Your task to perform on an android device: toggle priority inbox in the gmail app Image 0: 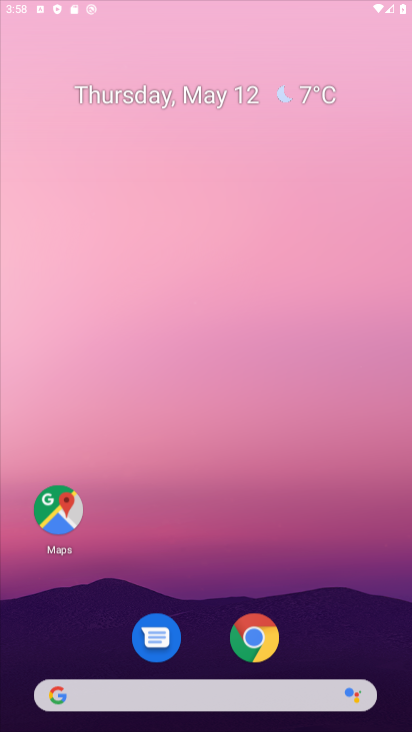
Step 0: click (266, 129)
Your task to perform on an android device: toggle priority inbox in the gmail app Image 1: 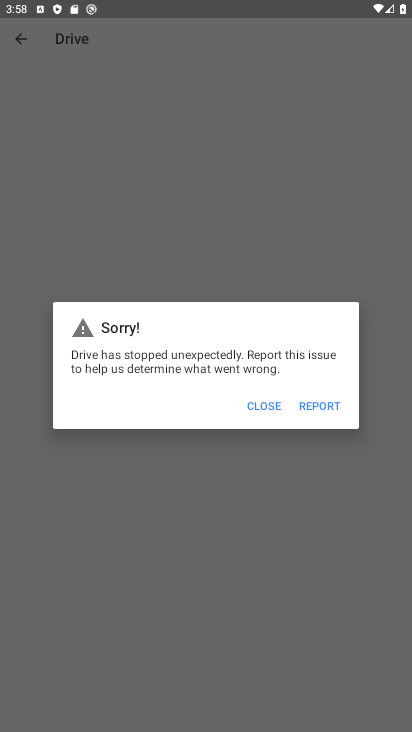
Step 1: press home button
Your task to perform on an android device: toggle priority inbox in the gmail app Image 2: 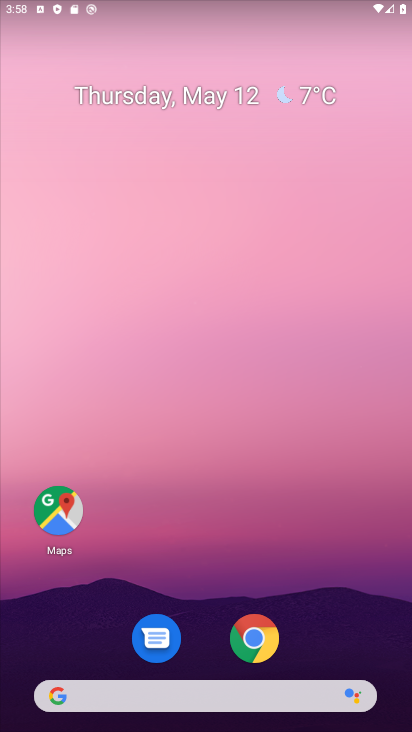
Step 2: drag from (313, 588) to (301, 170)
Your task to perform on an android device: toggle priority inbox in the gmail app Image 3: 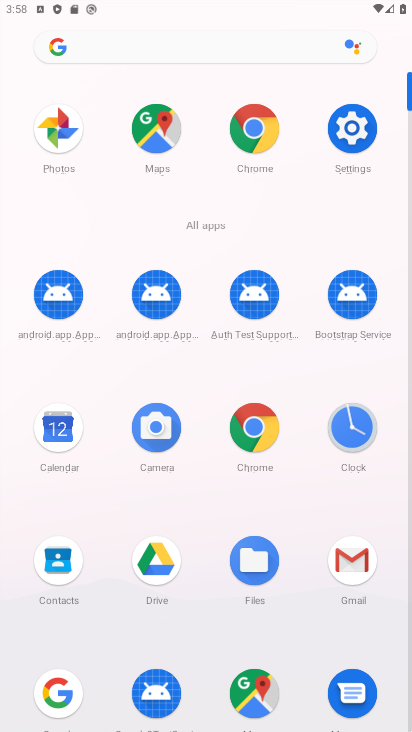
Step 3: click (354, 563)
Your task to perform on an android device: toggle priority inbox in the gmail app Image 4: 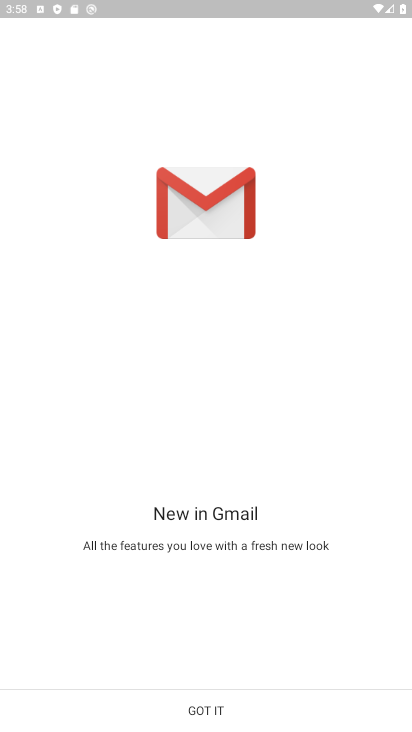
Step 4: click (202, 711)
Your task to perform on an android device: toggle priority inbox in the gmail app Image 5: 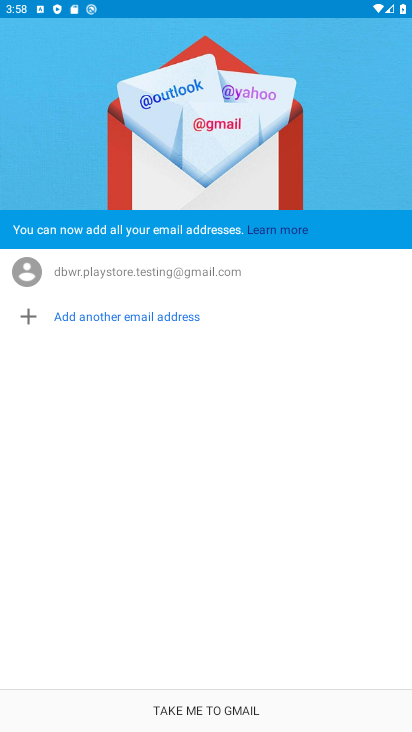
Step 5: click (219, 704)
Your task to perform on an android device: toggle priority inbox in the gmail app Image 6: 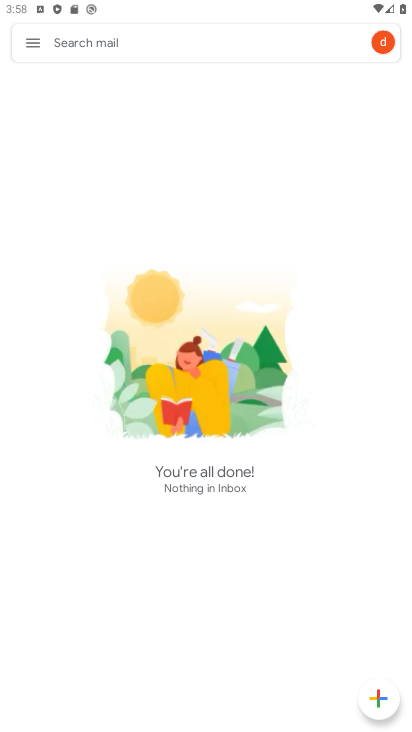
Step 6: click (27, 44)
Your task to perform on an android device: toggle priority inbox in the gmail app Image 7: 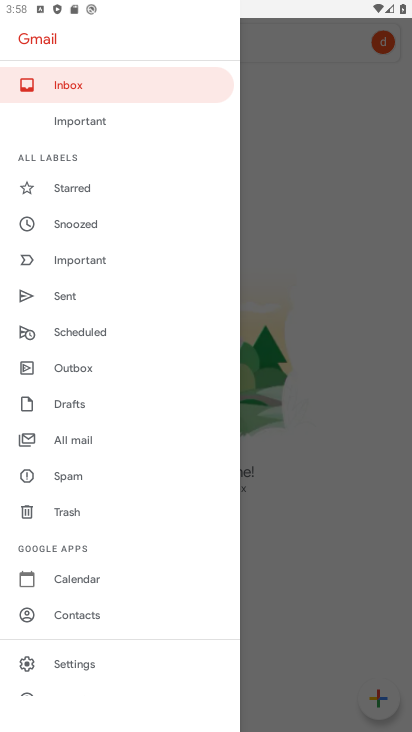
Step 7: click (102, 661)
Your task to perform on an android device: toggle priority inbox in the gmail app Image 8: 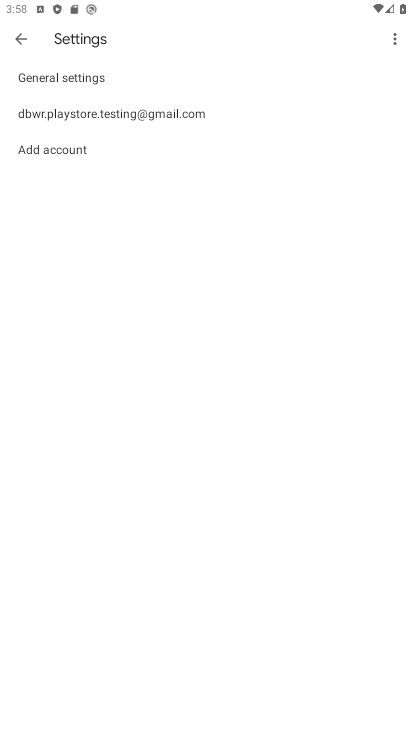
Step 8: click (148, 113)
Your task to perform on an android device: toggle priority inbox in the gmail app Image 9: 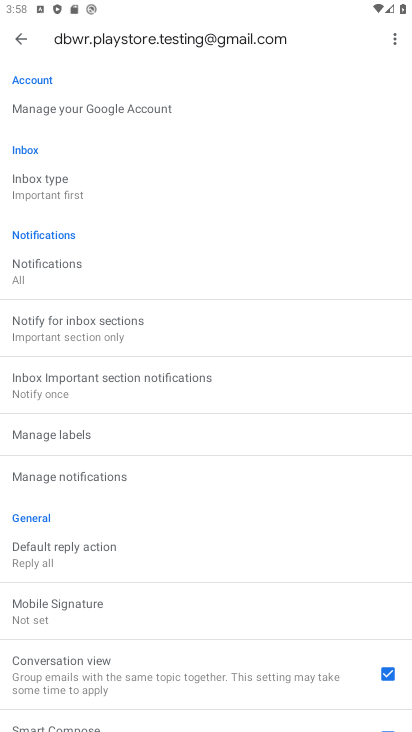
Step 9: click (87, 185)
Your task to perform on an android device: toggle priority inbox in the gmail app Image 10: 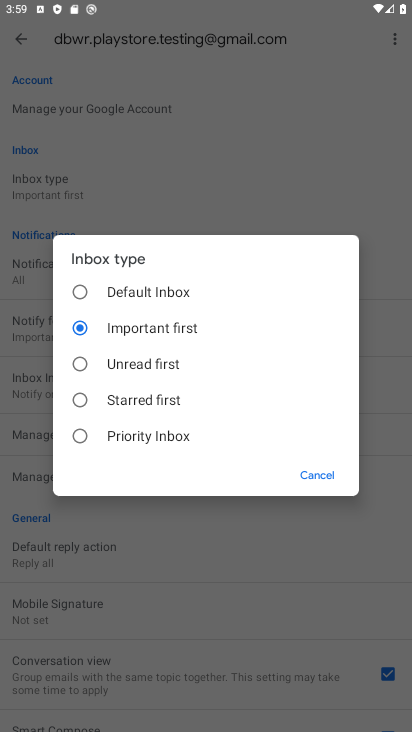
Step 10: click (143, 437)
Your task to perform on an android device: toggle priority inbox in the gmail app Image 11: 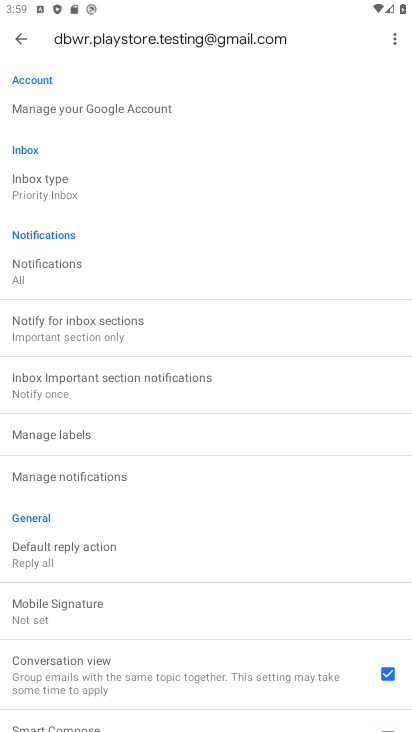
Step 11: task complete